Your task to perform on an android device: change notification settings in the gmail app Image 0: 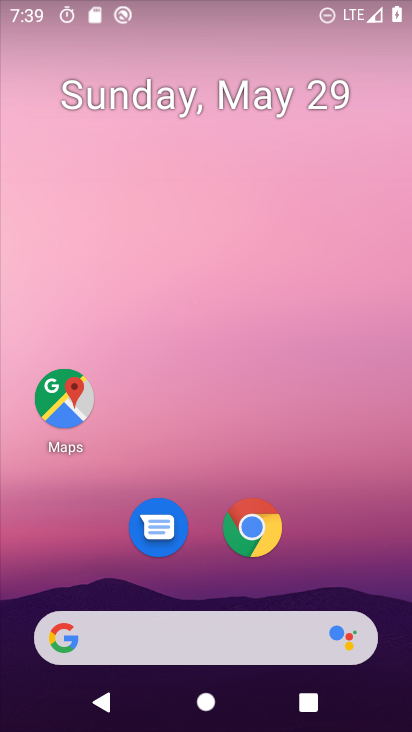
Step 0: drag from (377, 627) to (339, 15)
Your task to perform on an android device: change notification settings in the gmail app Image 1: 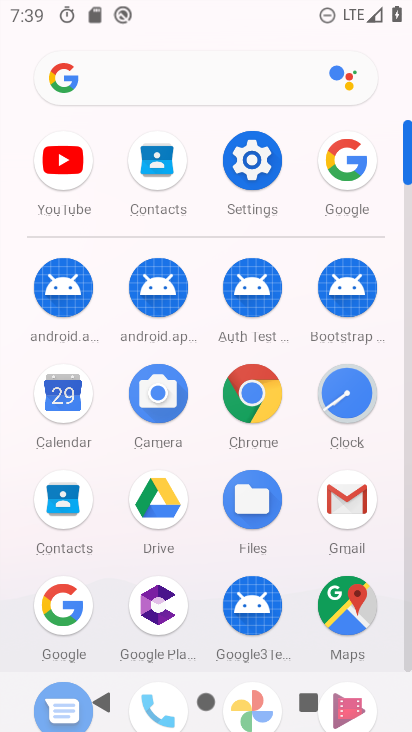
Step 1: click (329, 492)
Your task to perform on an android device: change notification settings in the gmail app Image 2: 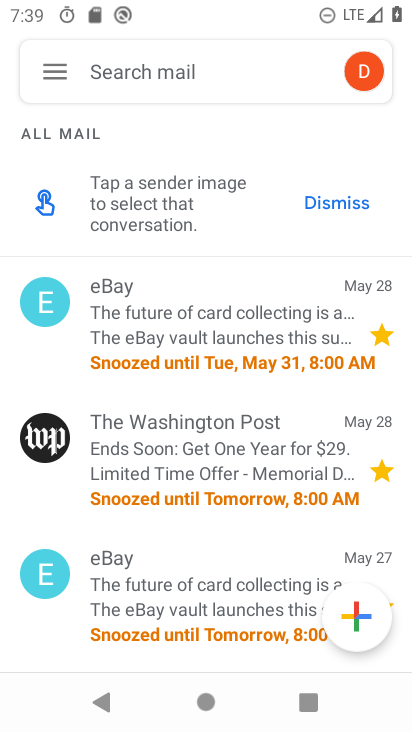
Step 2: click (53, 63)
Your task to perform on an android device: change notification settings in the gmail app Image 3: 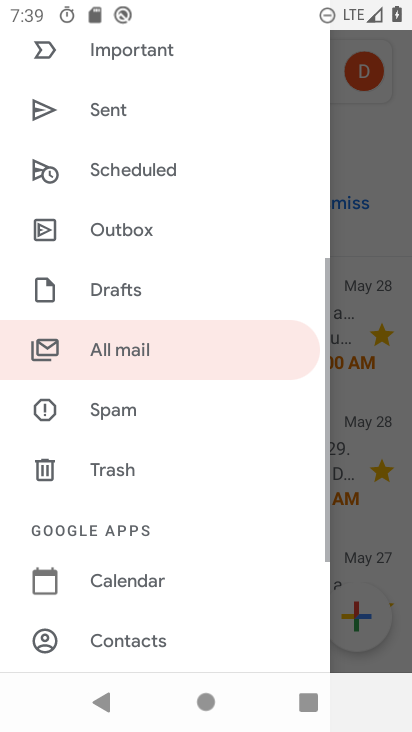
Step 3: drag from (162, 636) to (231, 81)
Your task to perform on an android device: change notification settings in the gmail app Image 4: 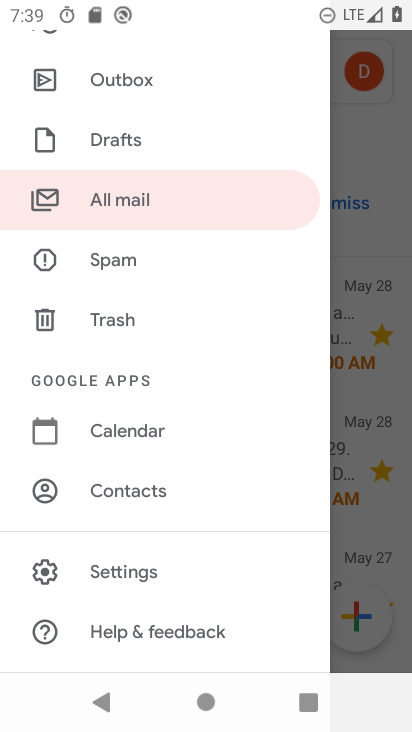
Step 4: click (136, 576)
Your task to perform on an android device: change notification settings in the gmail app Image 5: 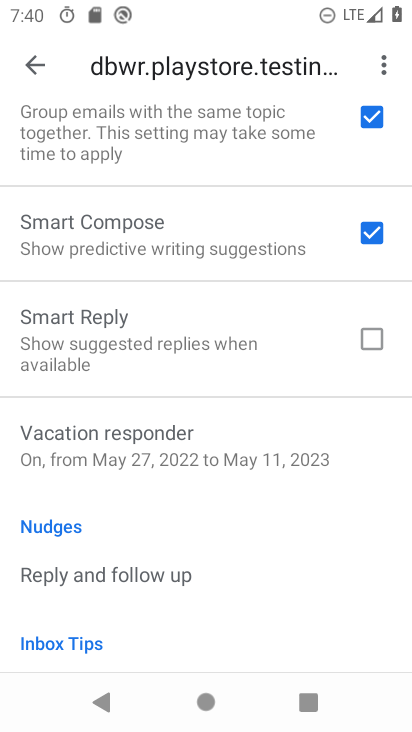
Step 5: drag from (181, 219) to (179, 693)
Your task to perform on an android device: change notification settings in the gmail app Image 6: 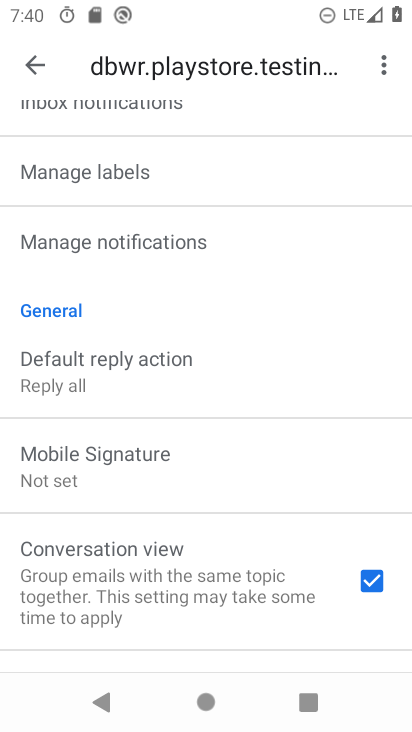
Step 6: drag from (205, 202) to (200, 693)
Your task to perform on an android device: change notification settings in the gmail app Image 7: 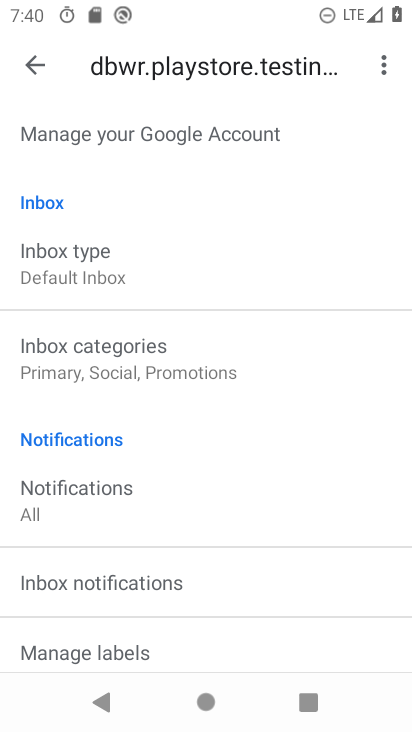
Step 7: click (121, 530)
Your task to perform on an android device: change notification settings in the gmail app Image 8: 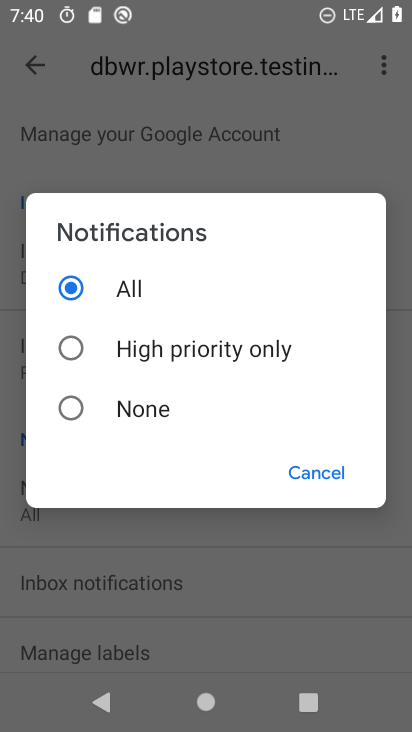
Step 8: click (73, 403)
Your task to perform on an android device: change notification settings in the gmail app Image 9: 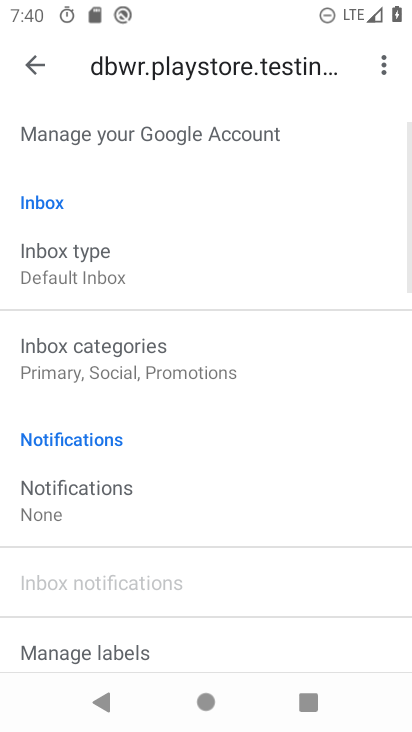
Step 9: task complete